Your task to perform on an android device: Go to Wikipedia Image 0: 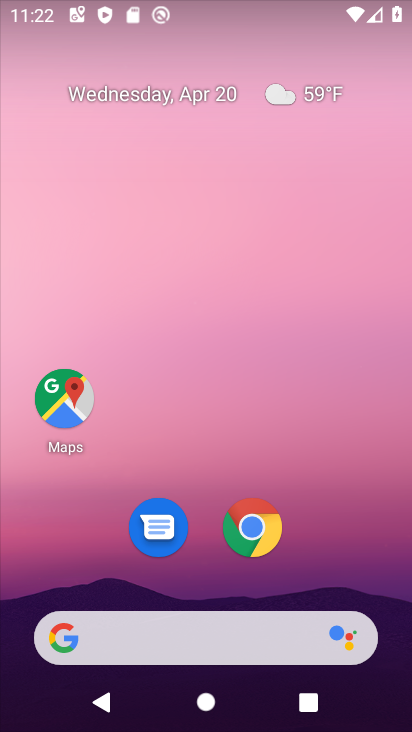
Step 0: drag from (365, 540) to (371, 172)
Your task to perform on an android device: Go to Wikipedia Image 1: 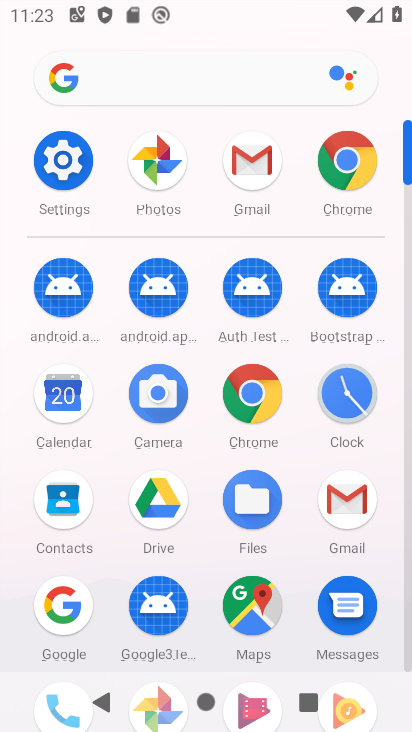
Step 1: click (259, 393)
Your task to perform on an android device: Go to Wikipedia Image 2: 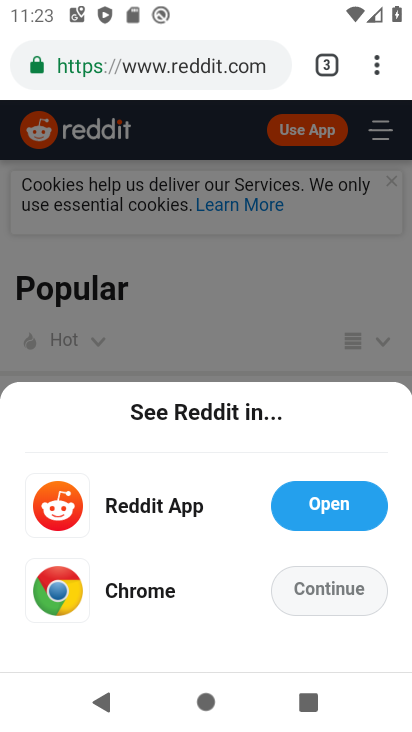
Step 2: click (332, 69)
Your task to perform on an android device: Go to Wikipedia Image 3: 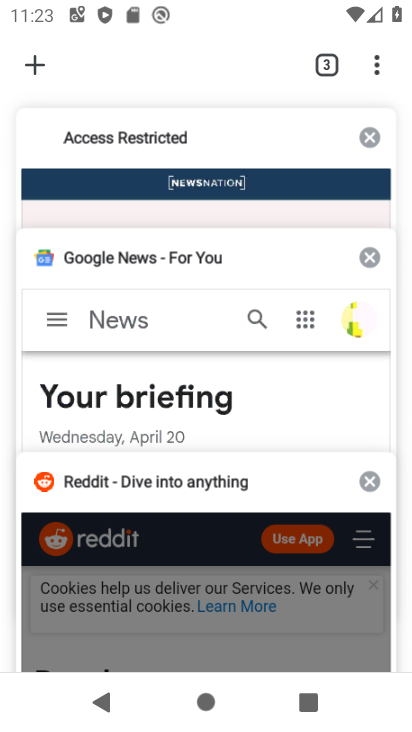
Step 3: click (42, 55)
Your task to perform on an android device: Go to Wikipedia Image 4: 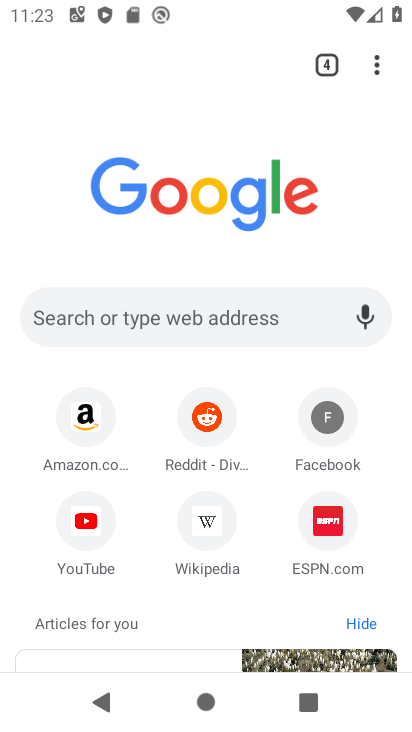
Step 4: click (255, 321)
Your task to perform on an android device: Go to Wikipedia Image 5: 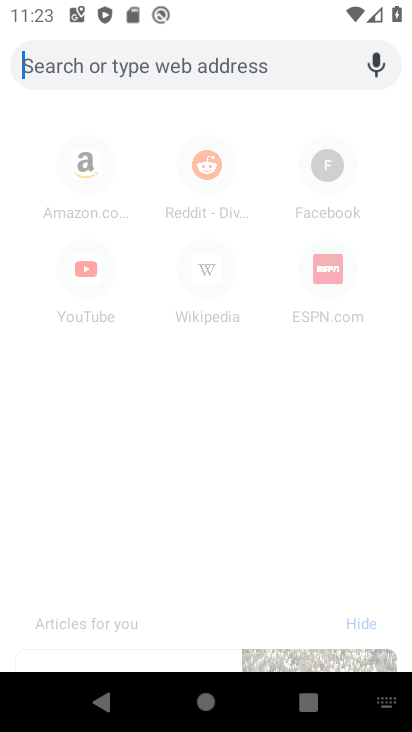
Step 5: type "wikipedia"
Your task to perform on an android device: Go to Wikipedia Image 6: 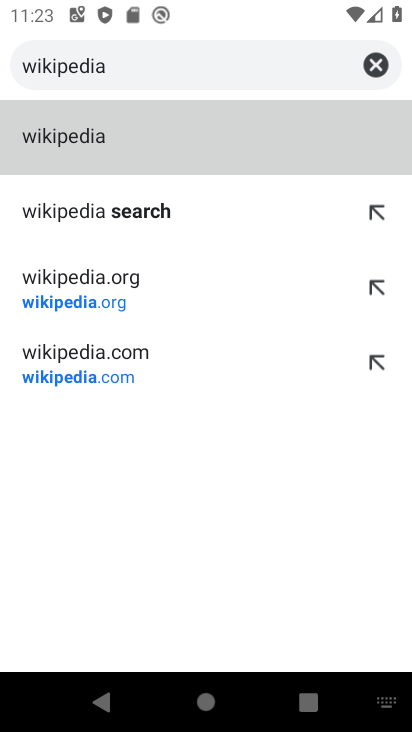
Step 6: click (66, 139)
Your task to perform on an android device: Go to Wikipedia Image 7: 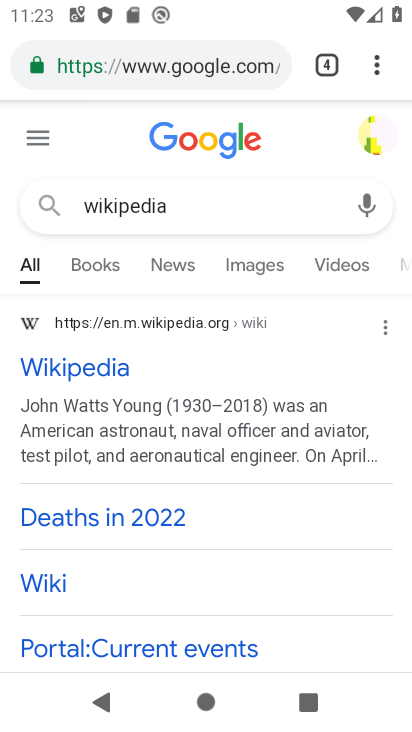
Step 7: click (77, 377)
Your task to perform on an android device: Go to Wikipedia Image 8: 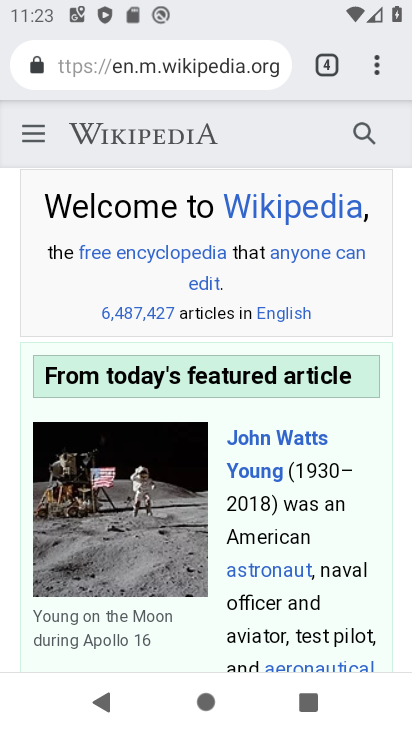
Step 8: task complete